Your task to perform on an android device: Check out the best rated books on Goodreads. Image 0: 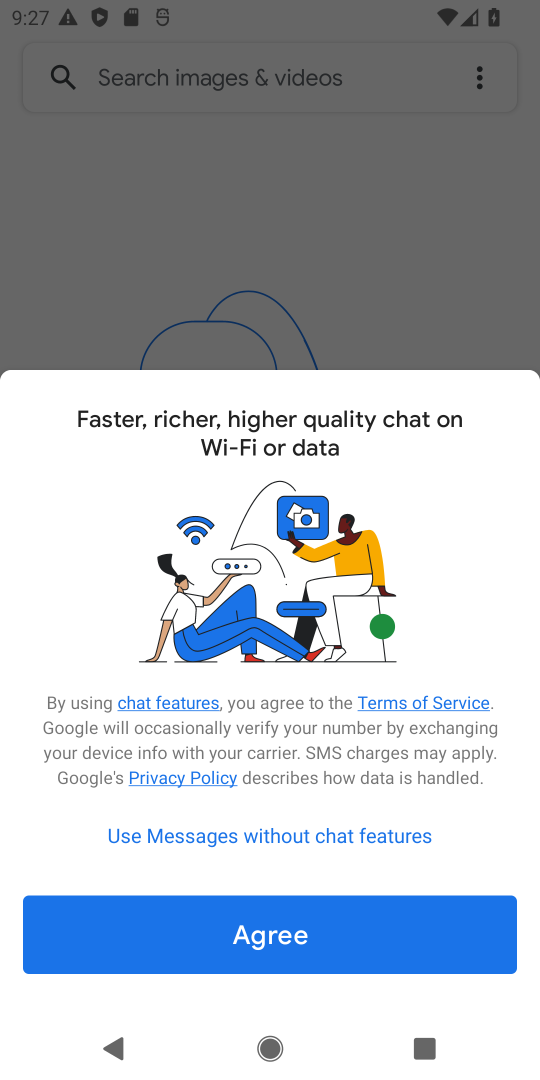
Step 0: press home button
Your task to perform on an android device: Check out the best rated books on Goodreads. Image 1: 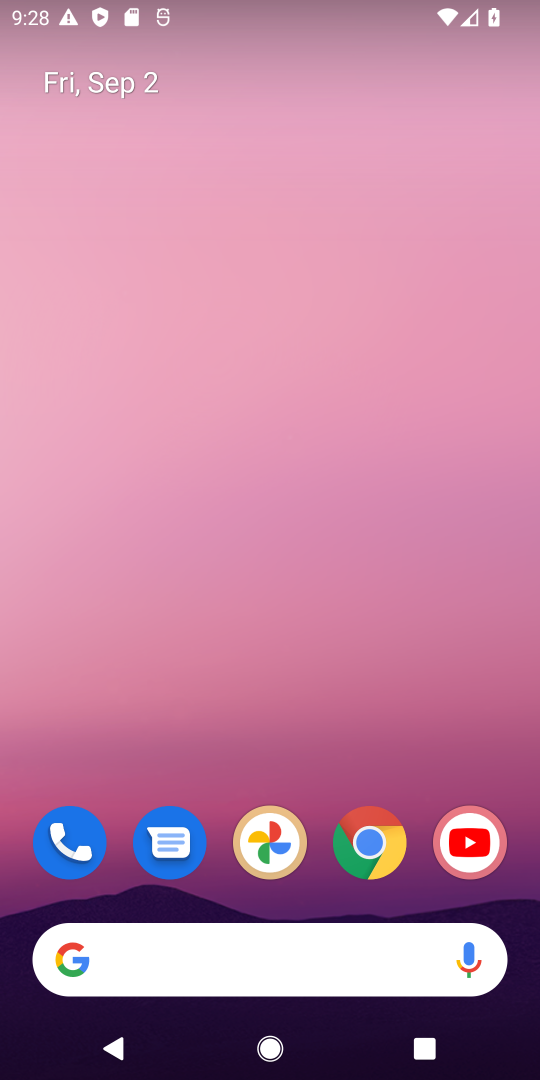
Step 1: drag from (298, 747) to (354, 26)
Your task to perform on an android device: Check out the best rated books on Goodreads. Image 2: 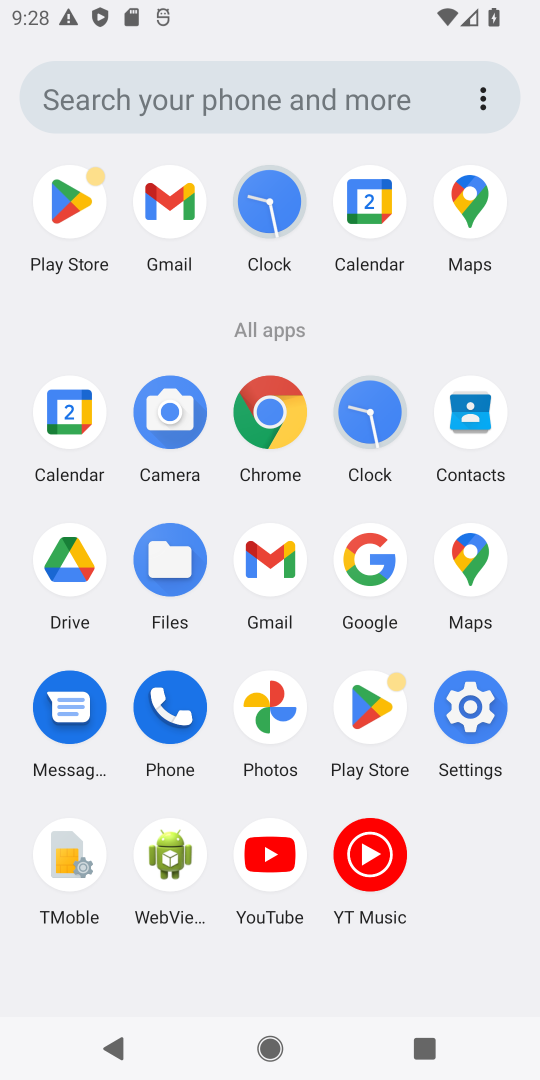
Step 2: click (271, 415)
Your task to perform on an android device: Check out the best rated books on Goodreads. Image 3: 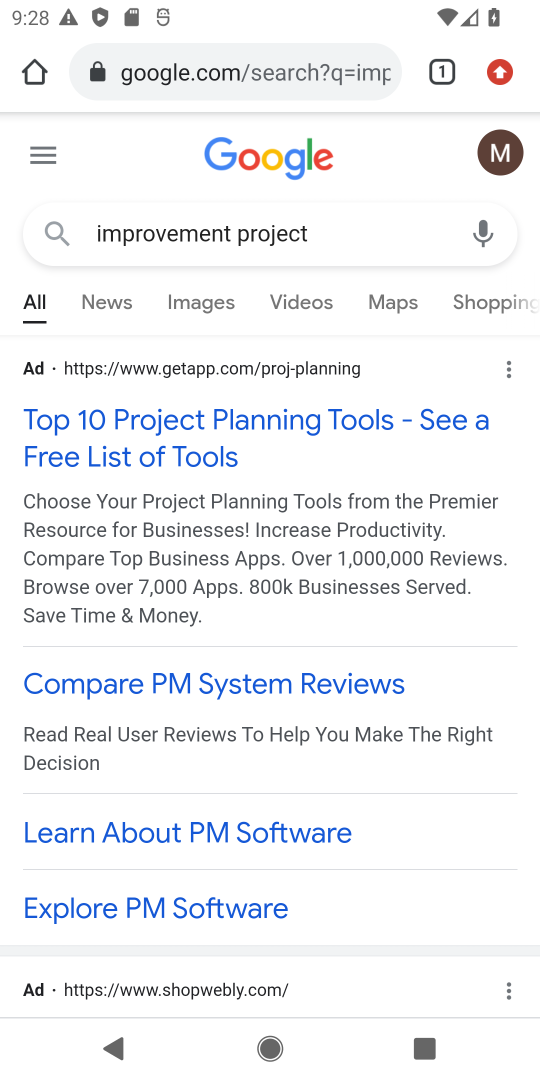
Step 3: type "Goodreads."
Your task to perform on an android device: Check out the best rated books on Goodreads. Image 4: 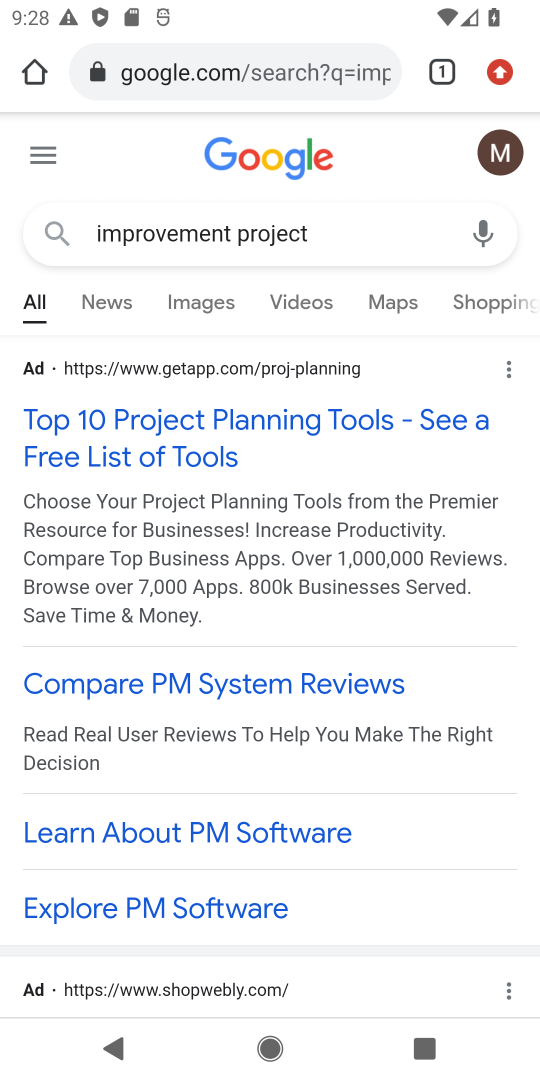
Step 4: press enter
Your task to perform on an android device: Check out the best rated books on Goodreads. Image 5: 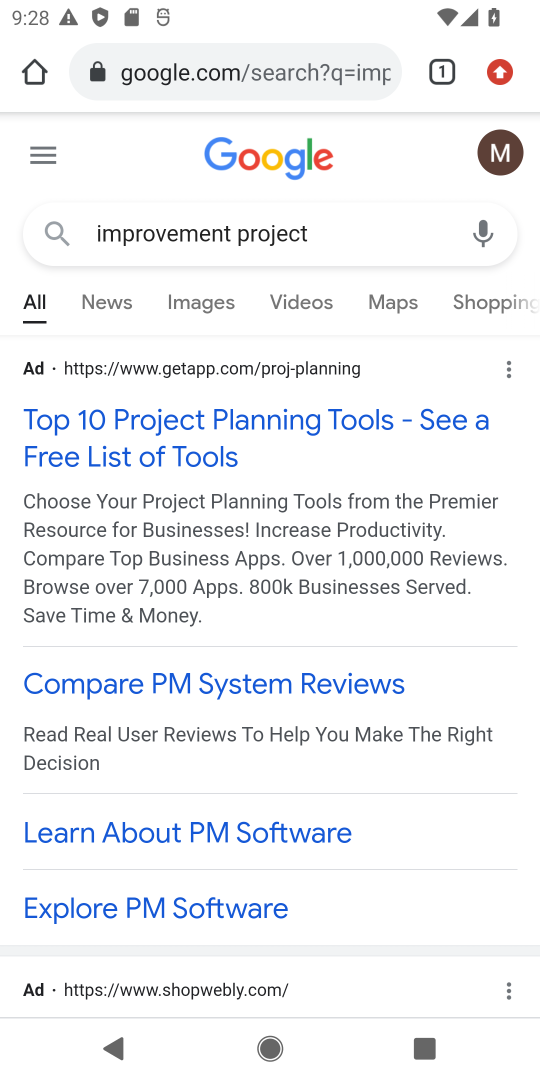
Step 5: click (343, 92)
Your task to perform on an android device: Check out the best rated books on Goodreads. Image 6: 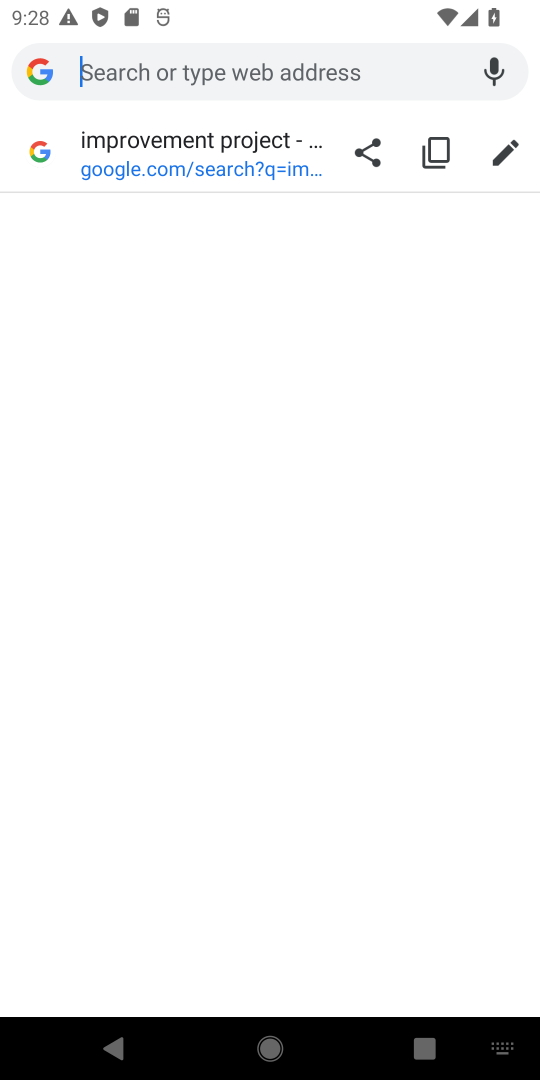
Step 6: type "Goodreads."
Your task to perform on an android device: Check out the best rated books on Goodreads. Image 7: 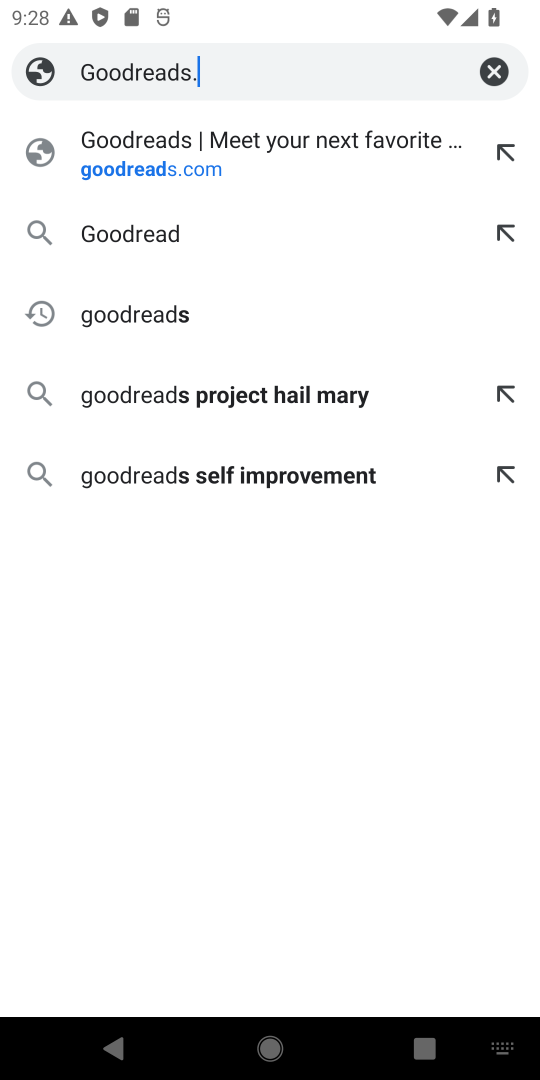
Step 7: press enter
Your task to perform on an android device: Check out the best rated books on Goodreads. Image 8: 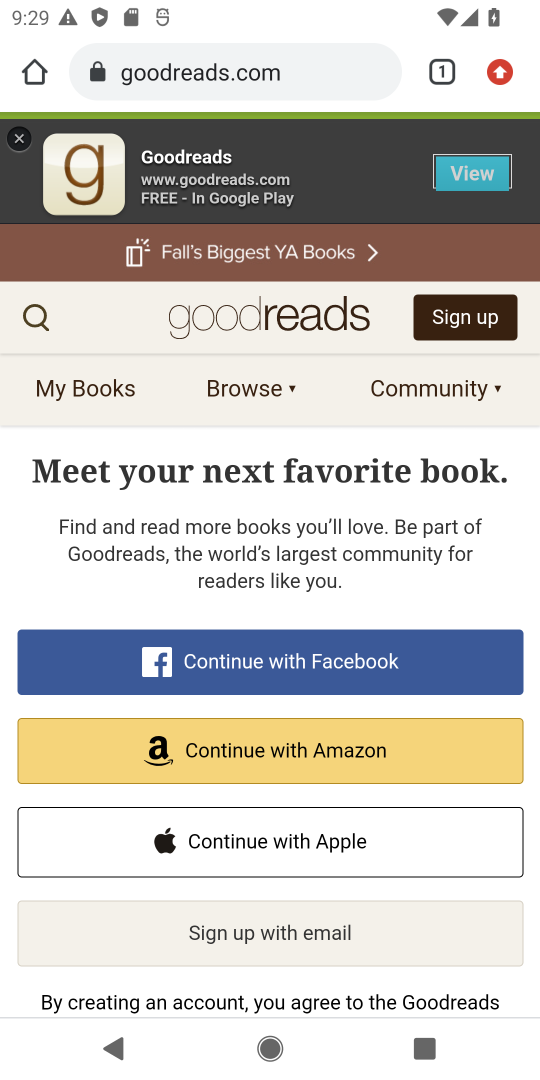
Step 8: click (289, 71)
Your task to perform on an android device: Check out the best rated books on Goodreads. Image 9: 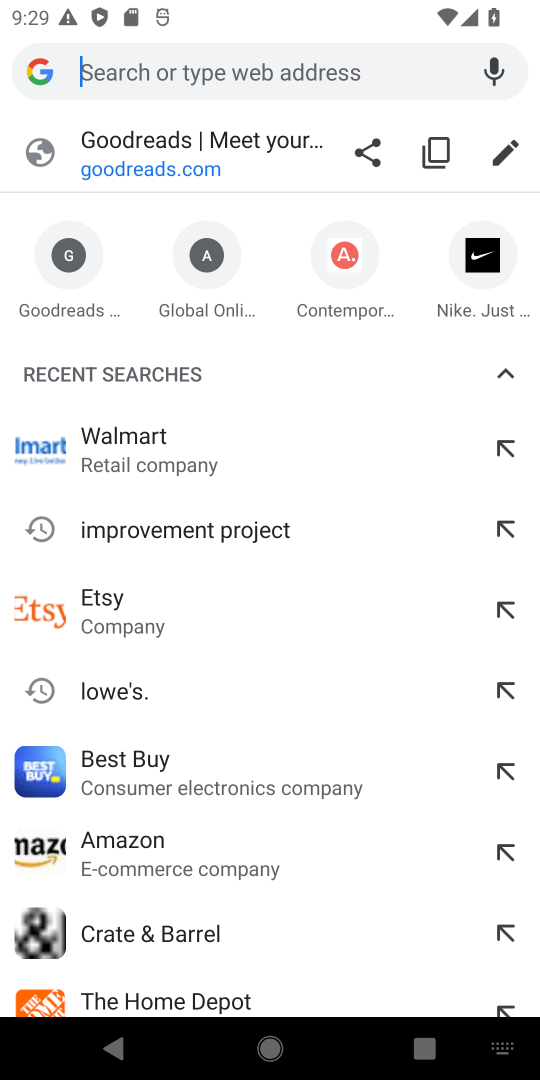
Step 9: type "Goodreads."
Your task to perform on an android device: Check out the best rated books on Goodreads. Image 10: 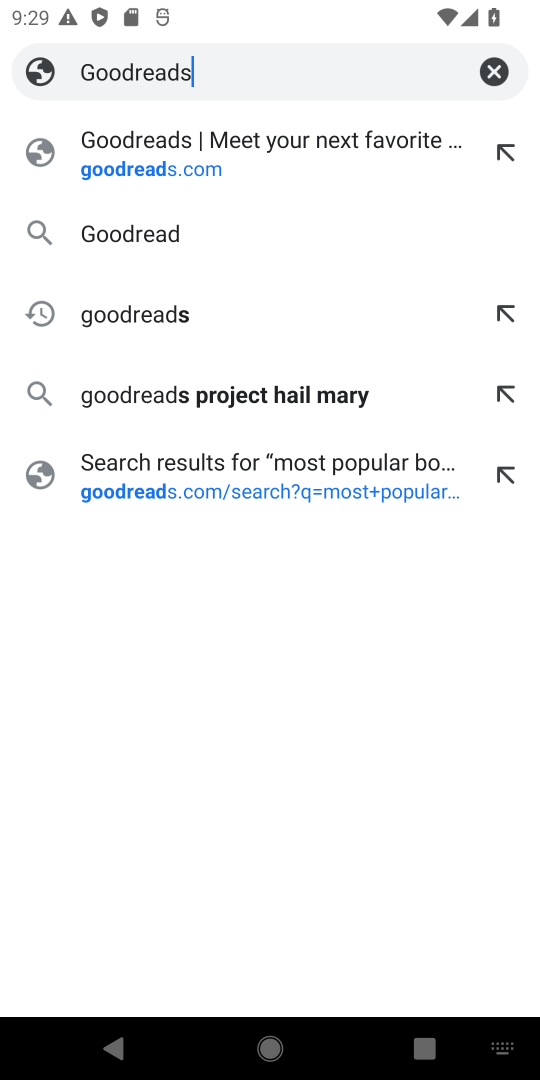
Step 10: press enter
Your task to perform on an android device: Check out the best rated books on Goodreads. Image 11: 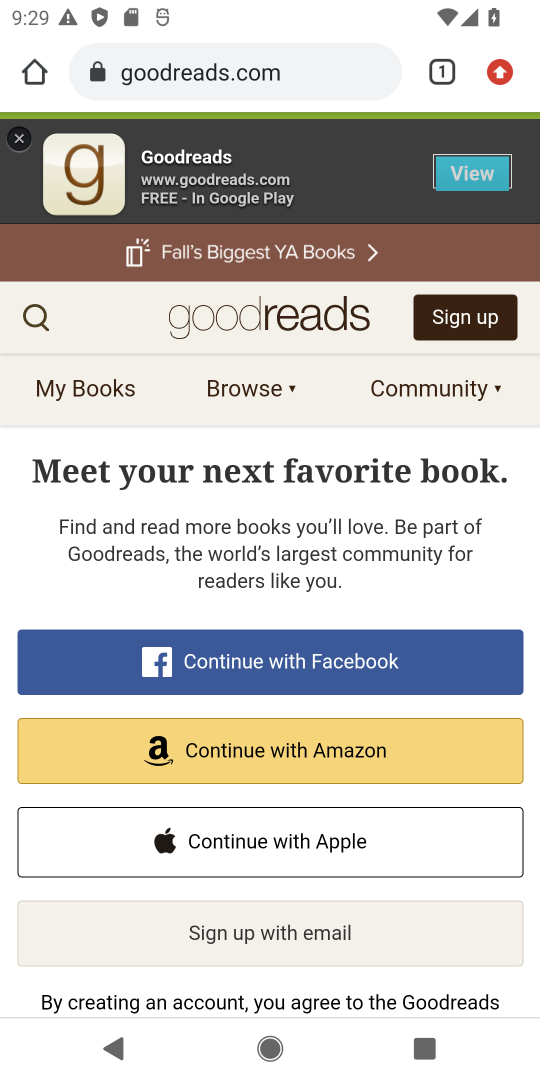
Step 11: click (59, 293)
Your task to perform on an android device: Check out the best rated books on Goodreads. Image 12: 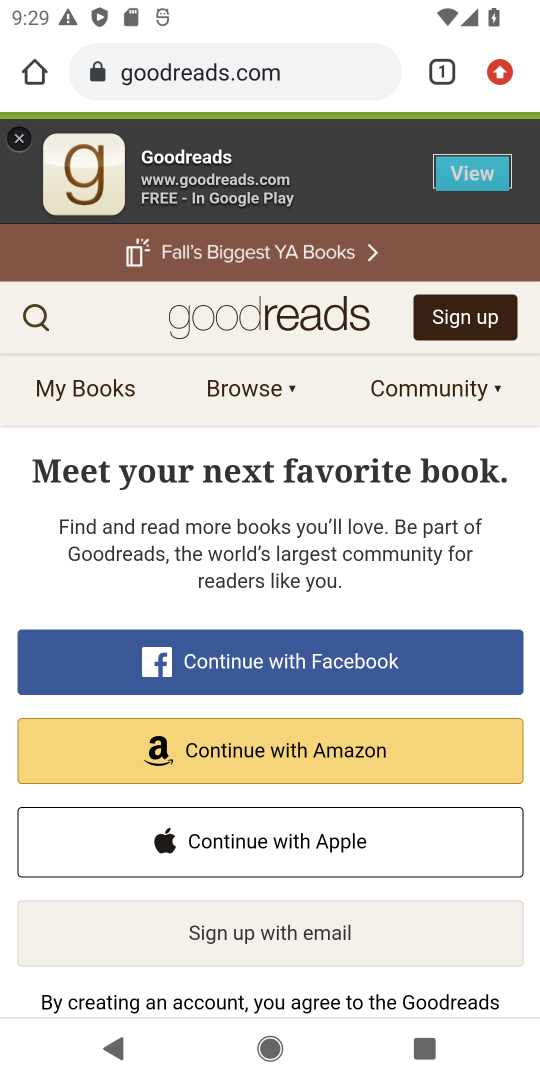
Step 12: click (29, 319)
Your task to perform on an android device: Check out the best rated books on Goodreads. Image 13: 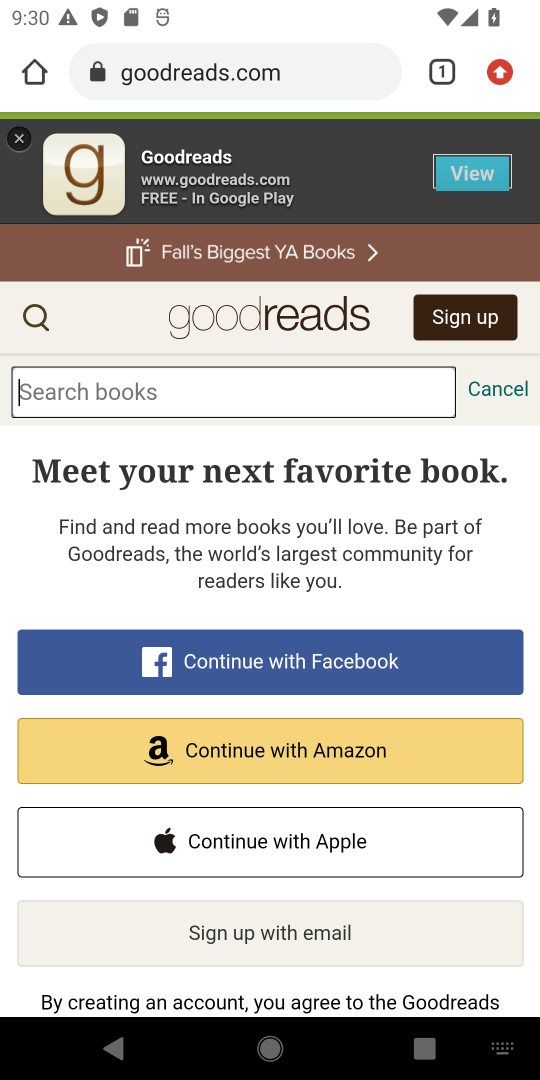
Step 13: press enter
Your task to perform on an android device: Check out the best rated books on Goodreads. Image 14: 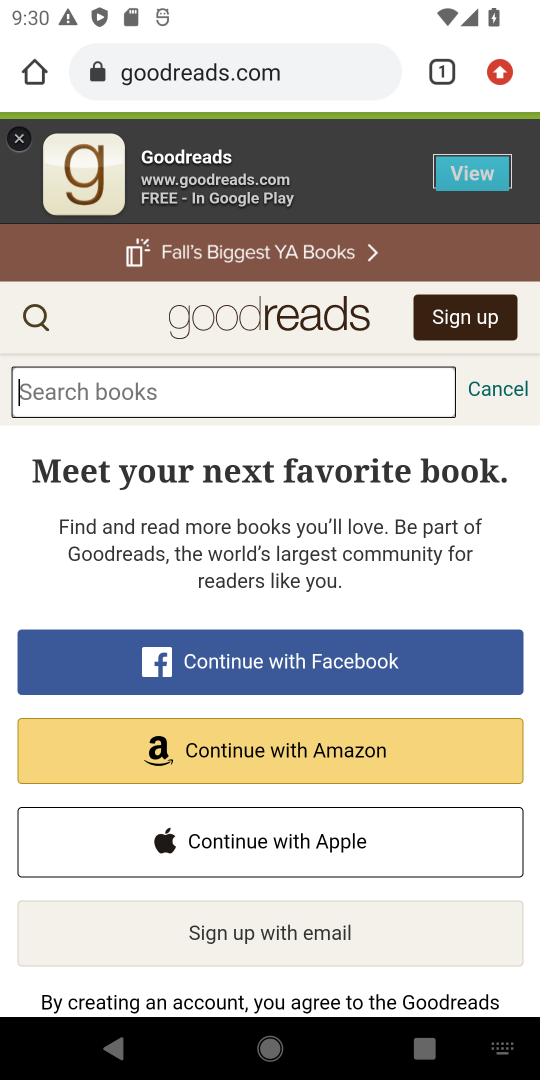
Step 14: type "best rated books"
Your task to perform on an android device: Check out the best rated books on Goodreads. Image 15: 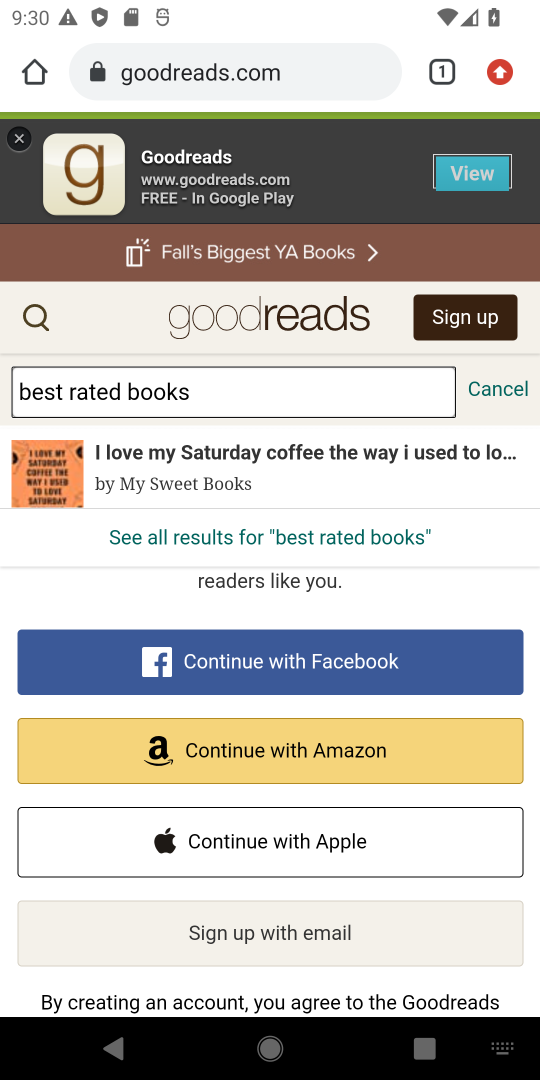
Step 15: press enter
Your task to perform on an android device: Check out the best rated books on Goodreads. Image 16: 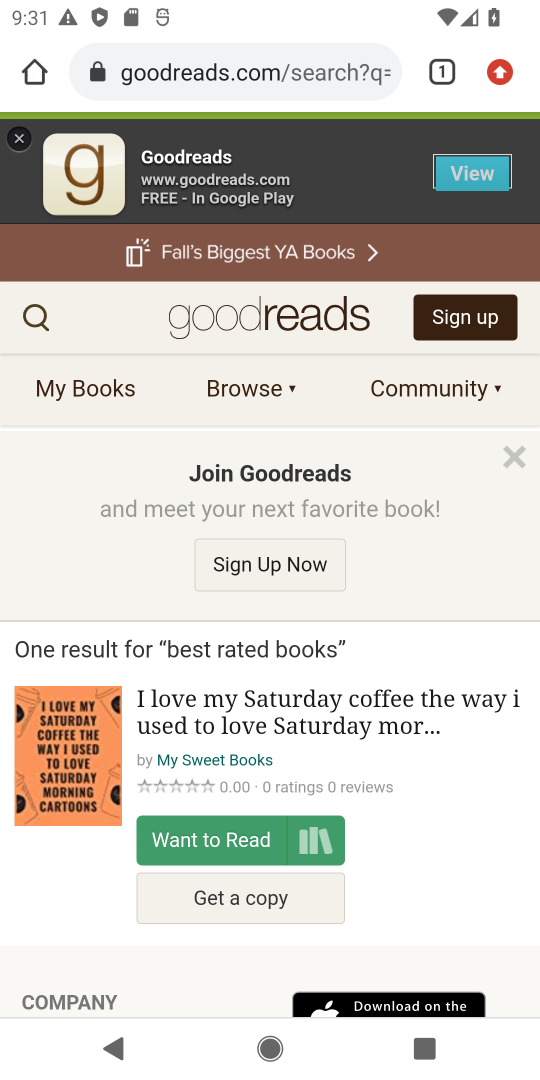
Step 16: task complete